Your task to perform on an android device: What is the recent news? Image 0: 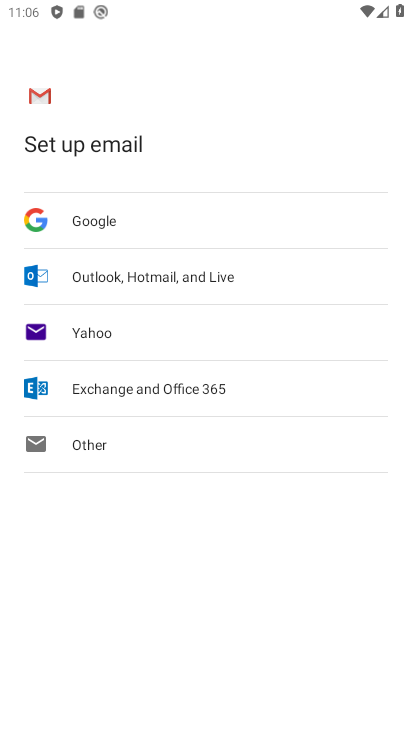
Step 0: press home button
Your task to perform on an android device: What is the recent news? Image 1: 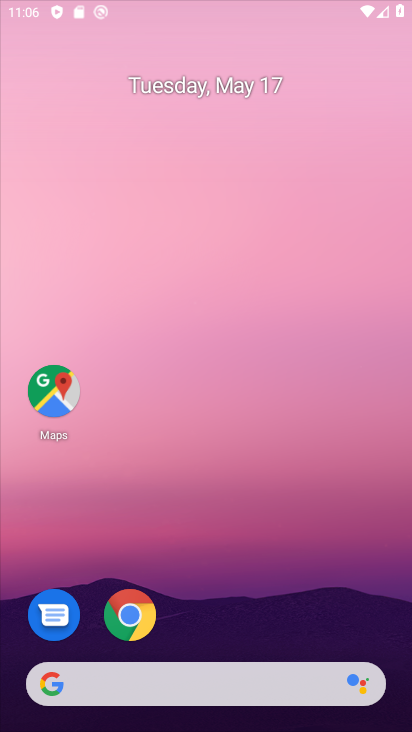
Step 1: drag from (399, 638) to (244, 23)
Your task to perform on an android device: What is the recent news? Image 2: 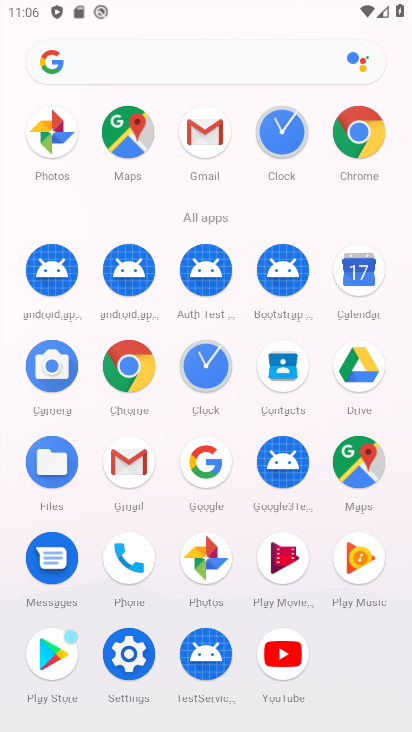
Step 2: click (206, 478)
Your task to perform on an android device: What is the recent news? Image 3: 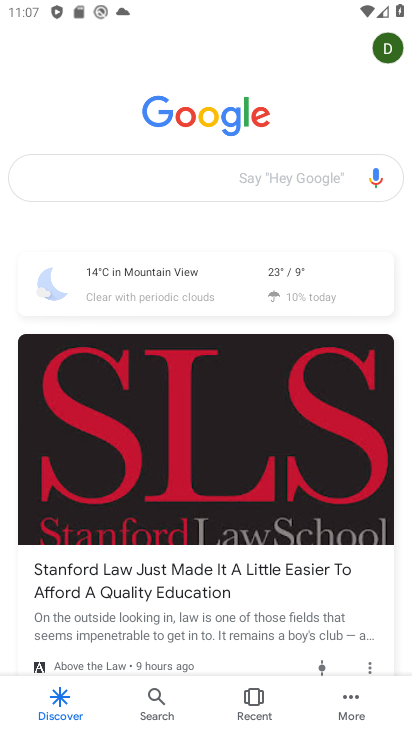
Step 3: click (172, 186)
Your task to perform on an android device: What is the recent news? Image 4: 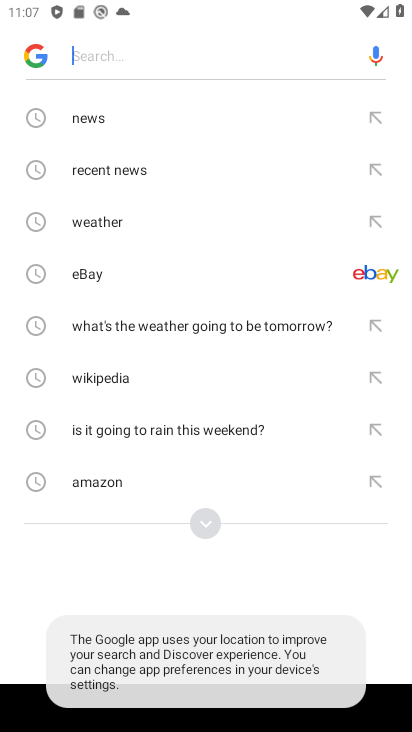
Step 4: click (142, 175)
Your task to perform on an android device: What is the recent news? Image 5: 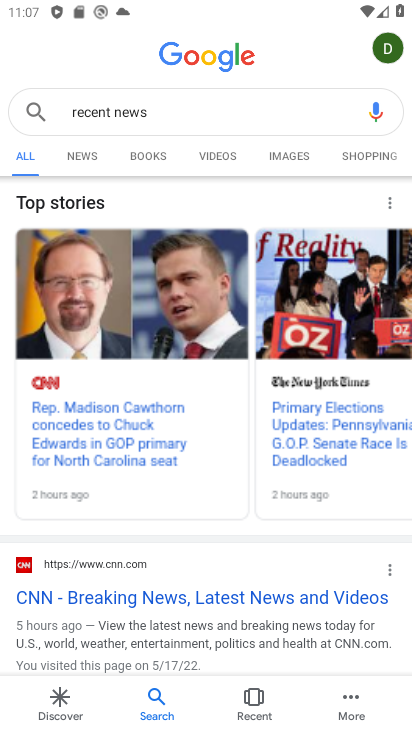
Step 5: task complete